Your task to perform on an android device: delete the emails in spam in the gmail app Image 0: 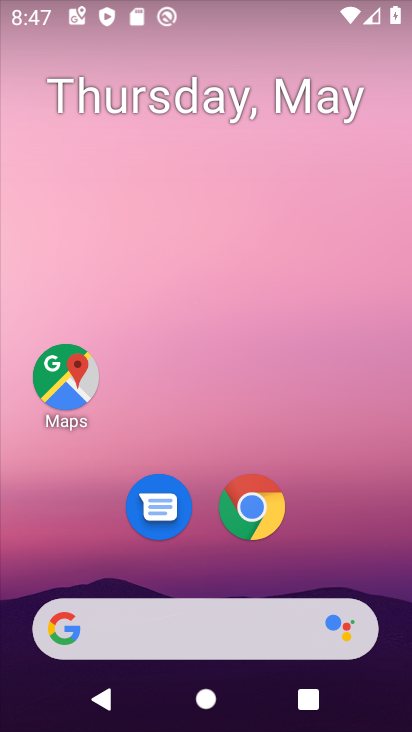
Step 0: drag from (268, 641) to (253, 182)
Your task to perform on an android device: delete the emails in spam in the gmail app Image 1: 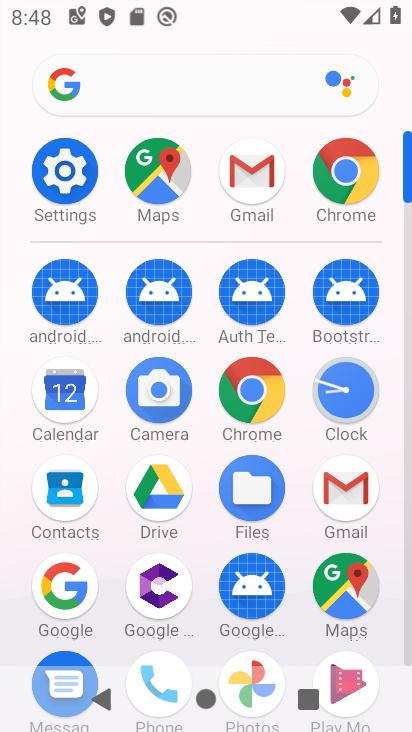
Step 1: click (345, 497)
Your task to perform on an android device: delete the emails in spam in the gmail app Image 2: 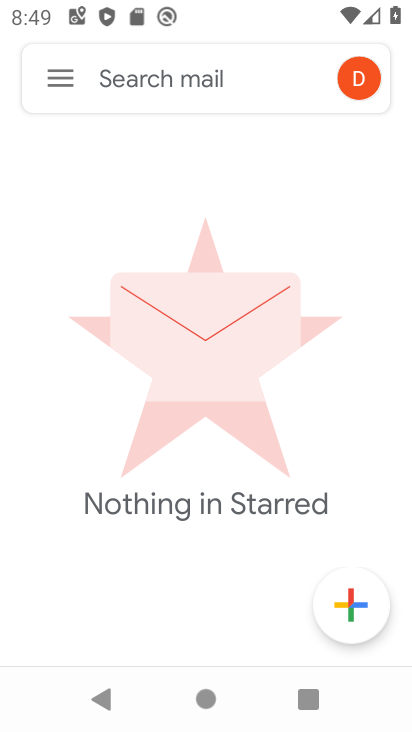
Step 2: click (61, 67)
Your task to perform on an android device: delete the emails in spam in the gmail app Image 3: 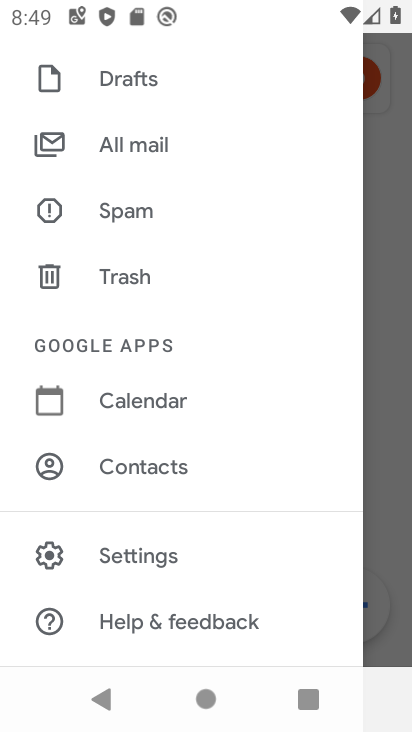
Step 3: click (133, 186)
Your task to perform on an android device: delete the emails in spam in the gmail app Image 4: 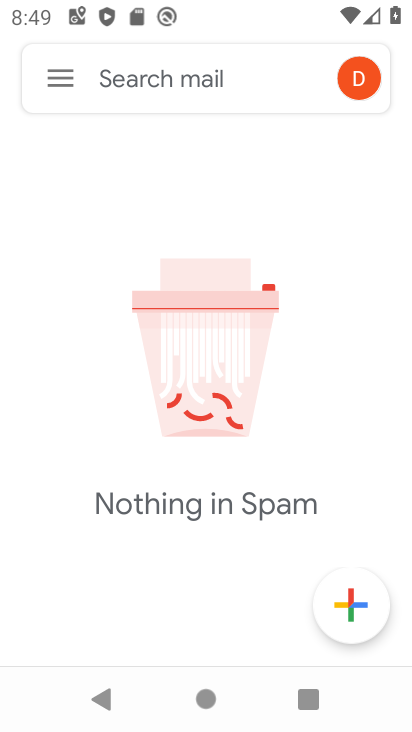
Step 4: task complete